Your task to perform on an android device: change timer sound Image 0: 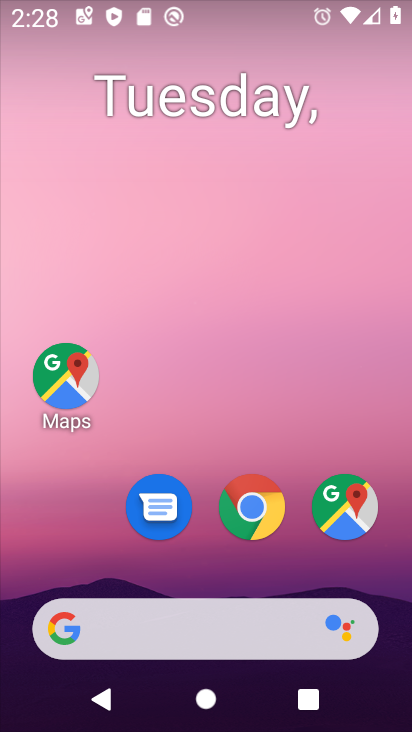
Step 0: drag from (208, 546) to (261, 198)
Your task to perform on an android device: change timer sound Image 1: 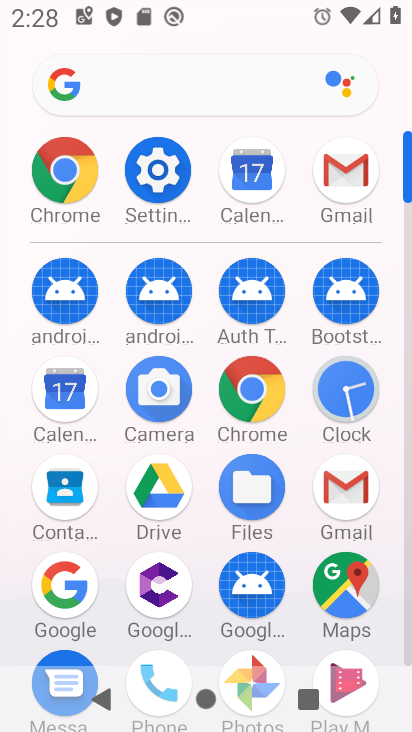
Step 1: click (330, 384)
Your task to perform on an android device: change timer sound Image 2: 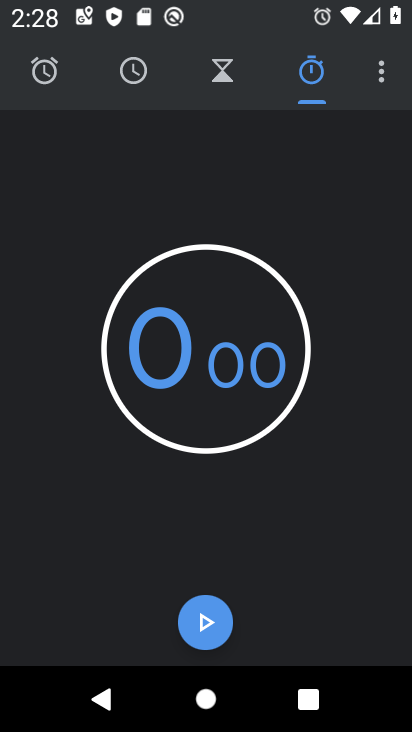
Step 2: click (370, 60)
Your task to perform on an android device: change timer sound Image 3: 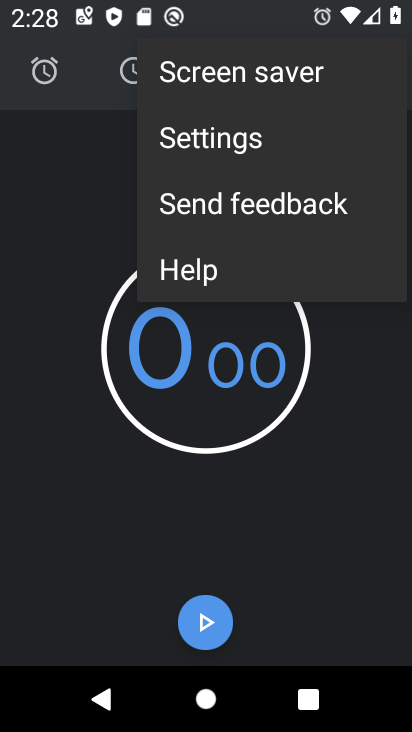
Step 3: click (249, 123)
Your task to perform on an android device: change timer sound Image 4: 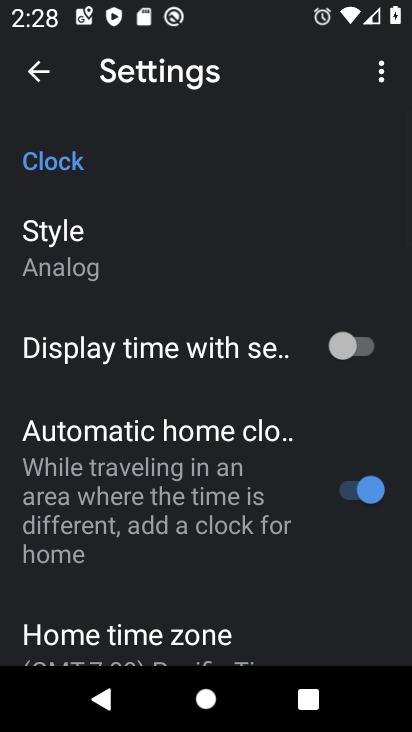
Step 4: drag from (210, 547) to (271, 220)
Your task to perform on an android device: change timer sound Image 5: 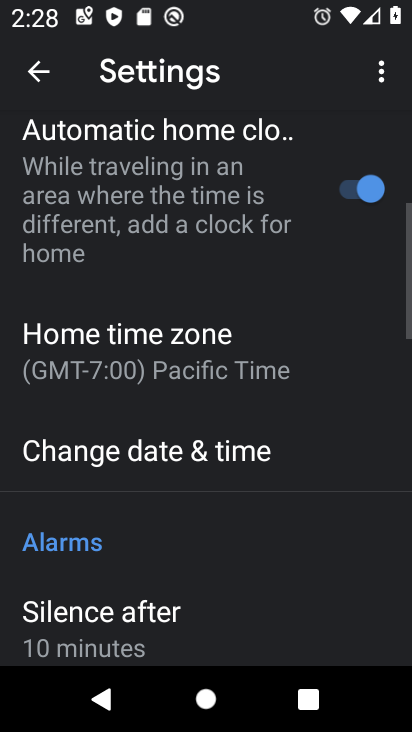
Step 5: drag from (203, 568) to (256, 299)
Your task to perform on an android device: change timer sound Image 6: 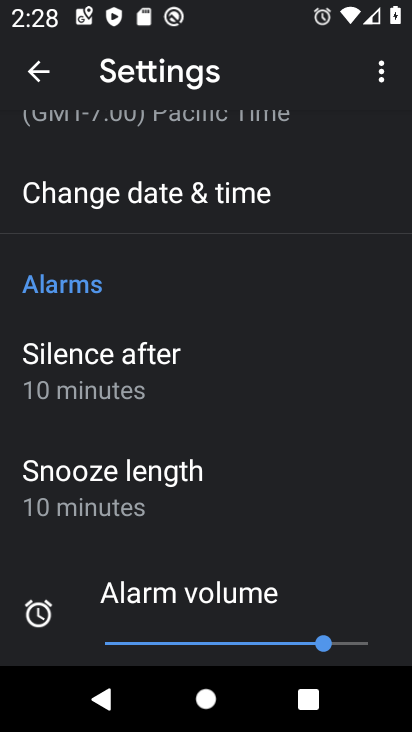
Step 6: drag from (164, 459) to (257, 225)
Your task to perform on an android device: change timer sound Image 7: 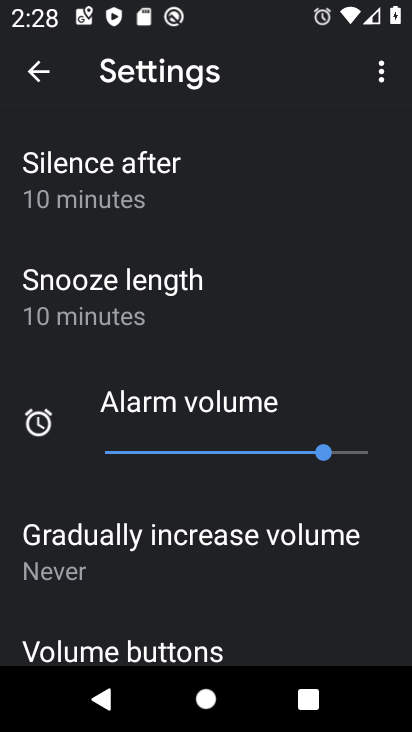
Step 7: drag from (153, 546) to (233, 239)
Your task to perform on an android device: change timer sound Image 8: 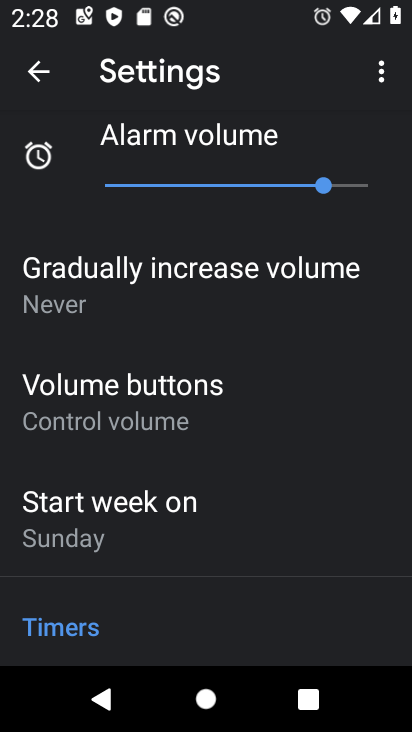
Step 8: drag from (139, 561) to (217, 318)
Your task to perform on an android device: change timer sound Image 9: 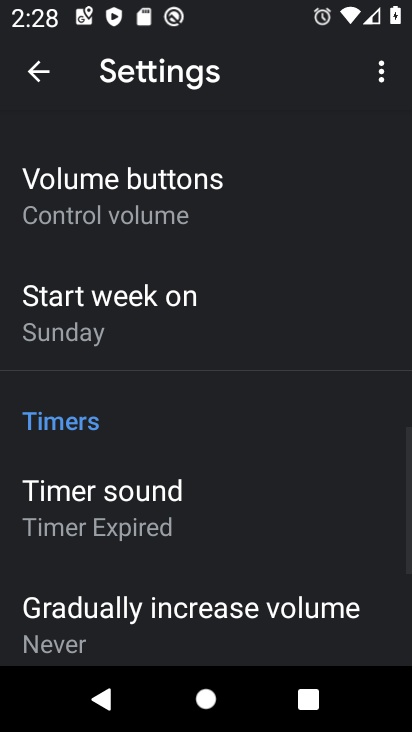
Step 9: click (138, 497)
Your task to perform on an android device: change timer sound Image 10: 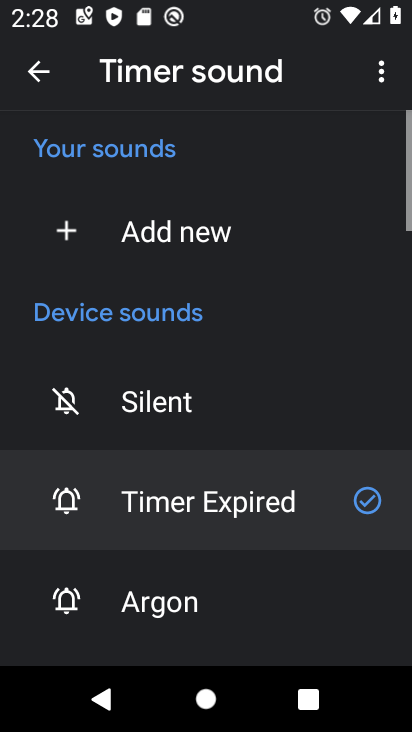
Step 10: drag from (230, 562) to (291, 245)
Your task to perform on an android device: change timer sound Image 11: 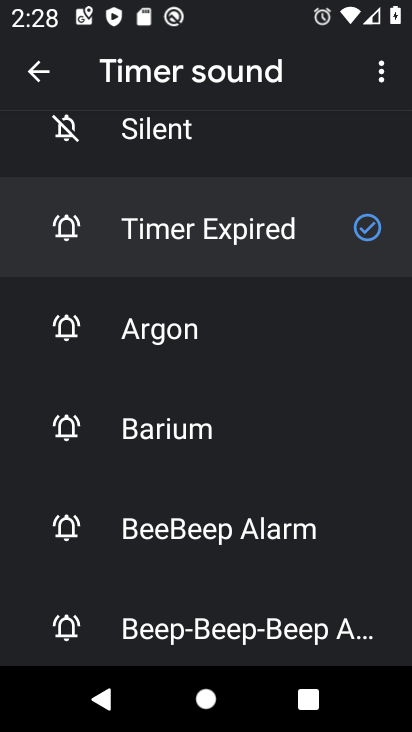
Step 11: click (172, 539)
Your task to perform on an android device: change timer sound Image 12: 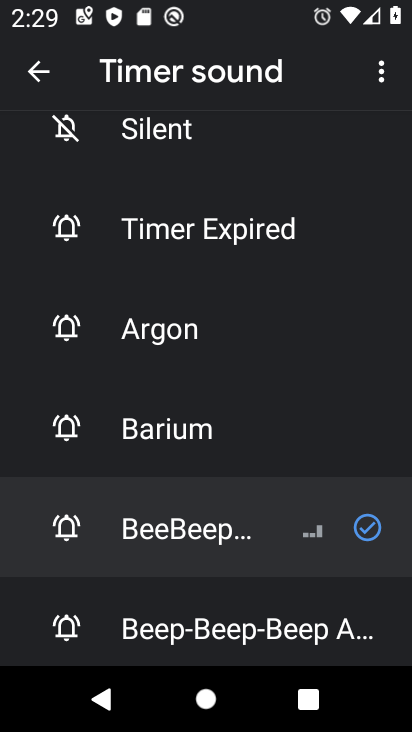
Step 12: task complete